Your task to perform on an android device: turn notification dots off Image 0: 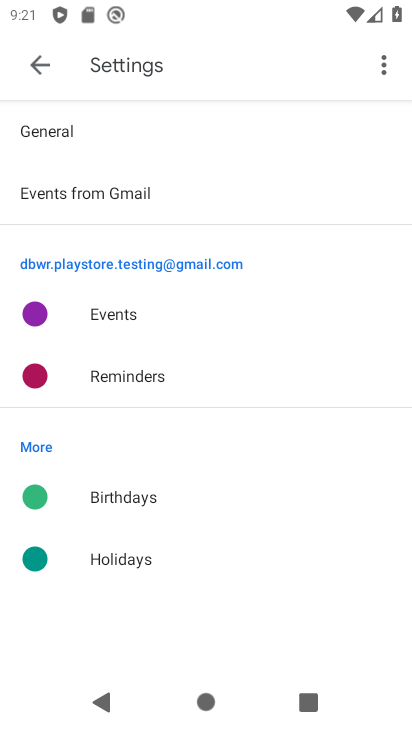
Step 0: press home button
Your task to perform on an android device: turn notification dots off Image 1: 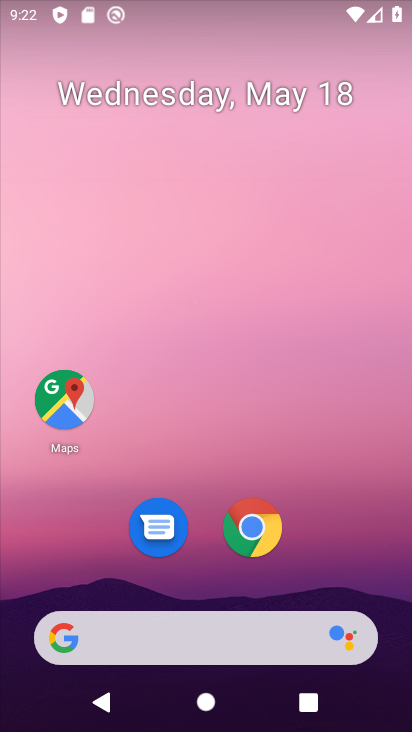
Step 1: drag from (209, 489) to (237, 156)
Your task to perform on an android device: turn notification dots off Image 2: 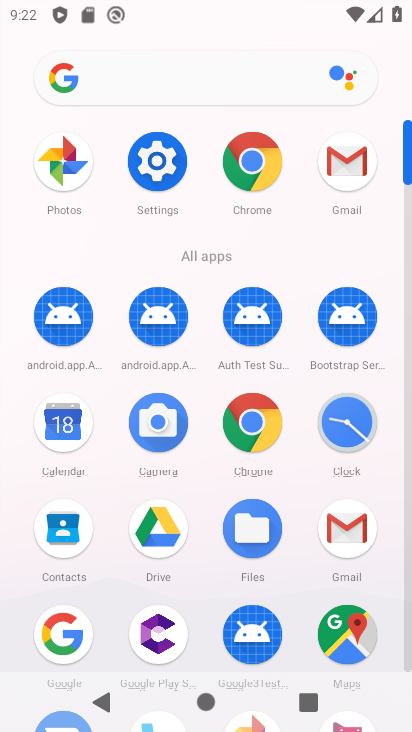
Step 2: click (158, 167)
Your task to perform on an android device: turn notification dots off Image 3: 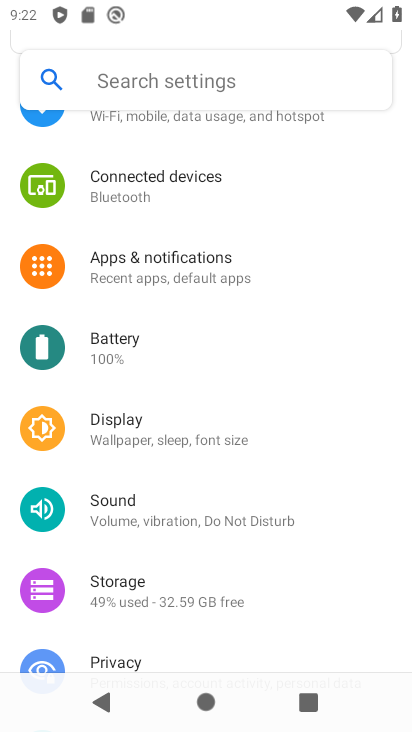
Step 3: click (176, 273)
Your task to perform on an android device: turn notification dots off Image 4: 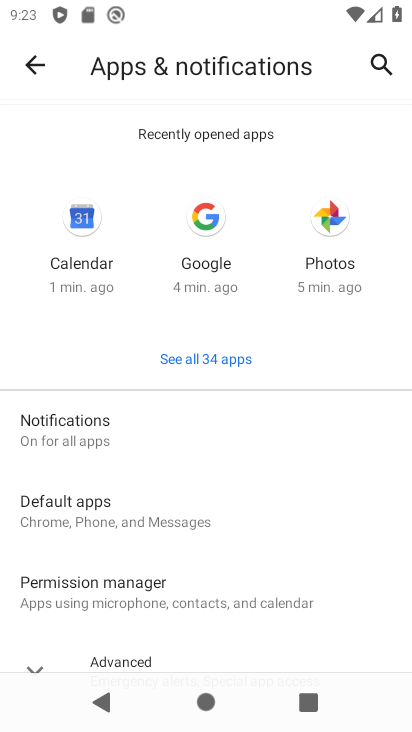
Step 4: click (96, 436)
Your task to perform on an android device: turn notification dots off Image 5: 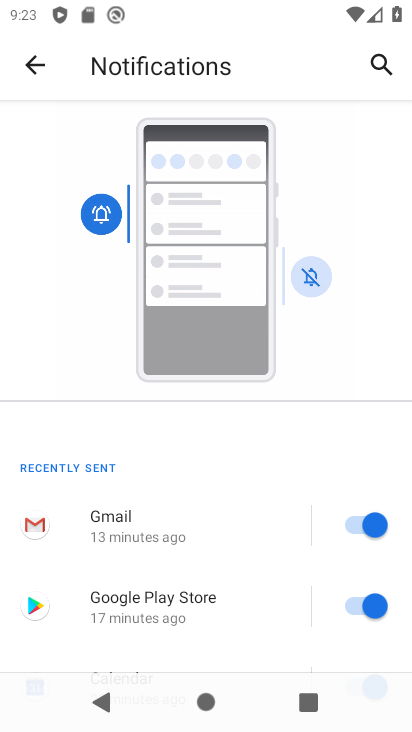
Step 5: drag from (190, 566) to (204, 312)
Your task to perform on an android device: turn notification dots off Image 6: 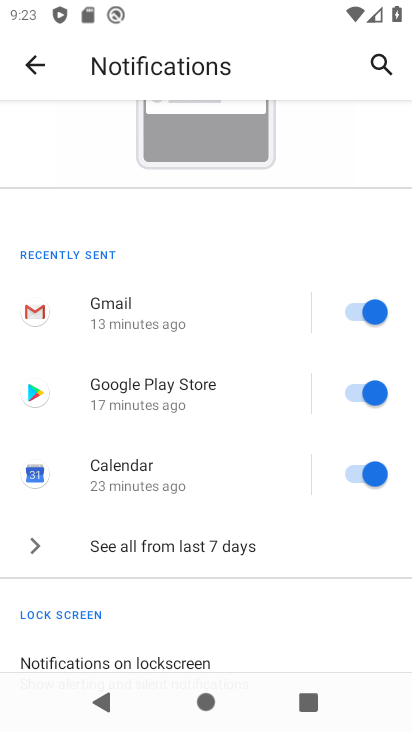
Step 6: drag from (208, 598) to (252, 206)
Your task to perform on an android device: turn notification dots off Image 7: 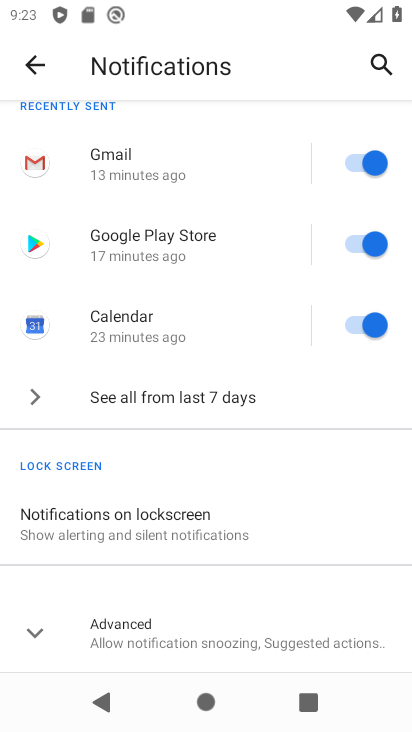
Step 7: click (211, 625)
Your task to perform on an android device: turn notification dots off Image 8: 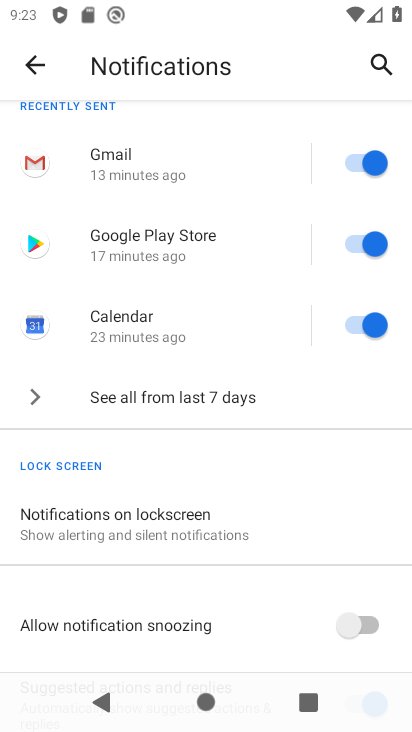
Step 8: drag from (211, 625) to (224, 382)
Your task to perform on an android device: turn notification dots off Image 9: 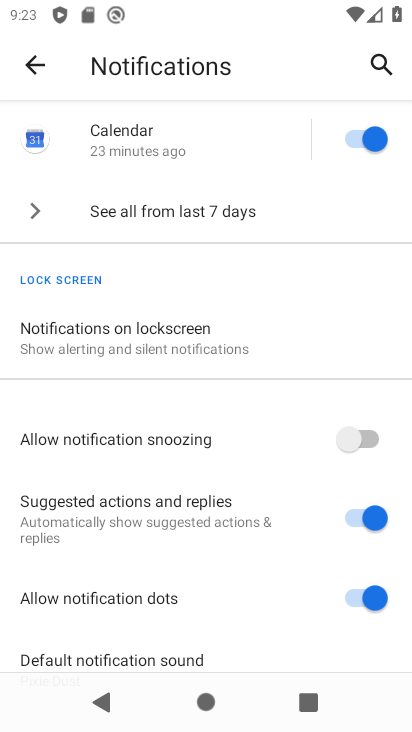
Step 9: click (355, 593)
Your task to perform on an android device: turn notification dots off Image 10: 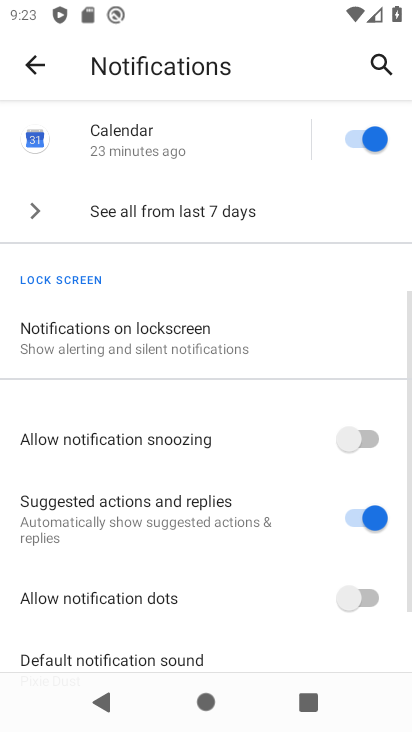
Step 10: task complete